Your task to perform on an android device: turn off picture-in-picture Image 0: 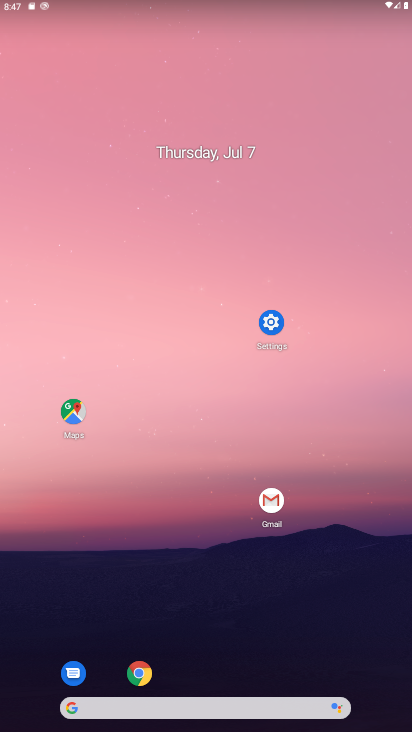
Step 0: click (134, 668)
Your task to perform on an android device: turn off picture-in-picture Image 1: 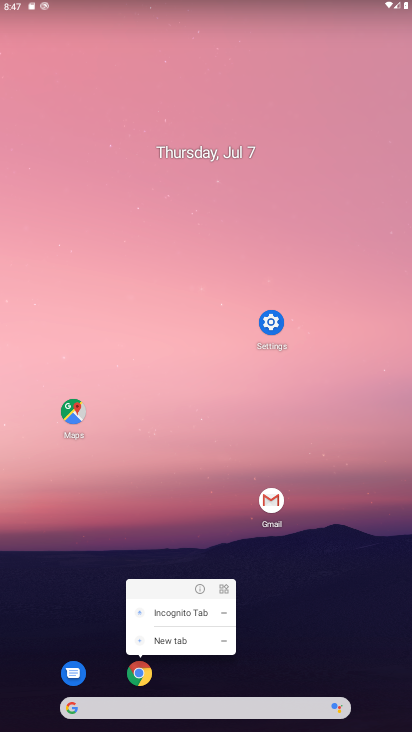
Step 1: click (202, 586)
Your task to perform on an android device: turn off picture-in-picture Image 2: 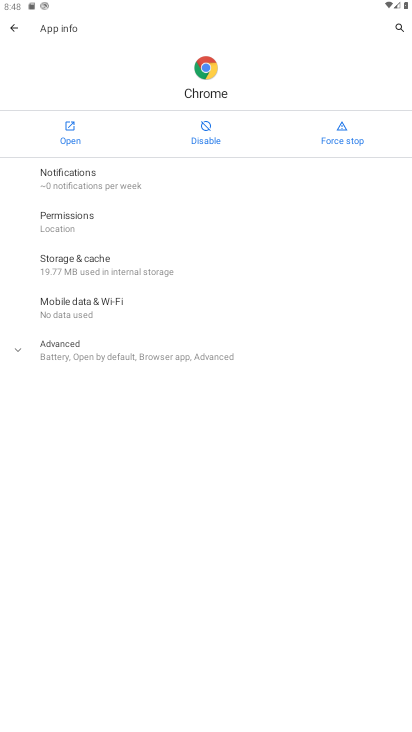
Step 2: click (32, 343)
Your task to perform on an android device: turn off picture-in-picture Image 3: 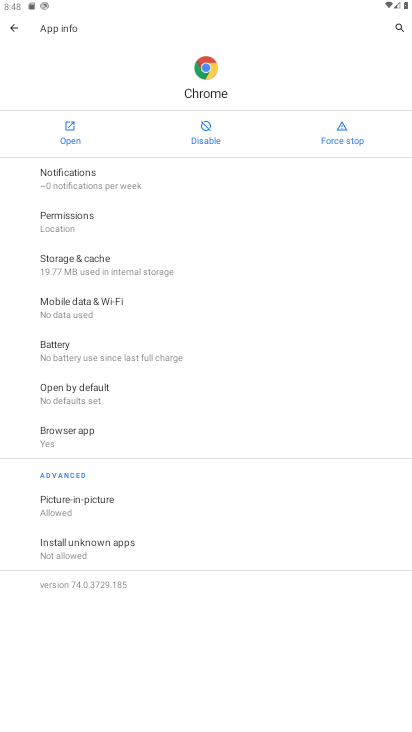
Step 3: click (84, 508)
Your task to perform on an android device: turn off picture-in-picture Image 4: 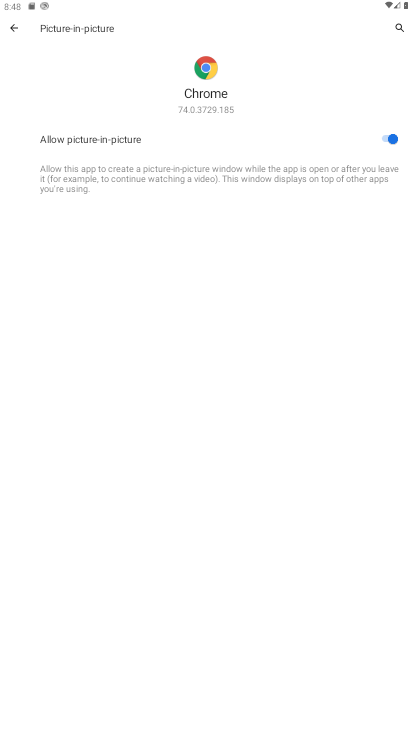
Step 4: click (380, 132)
Your task to perform on an android device: turn off picture-in-picture Image 5: 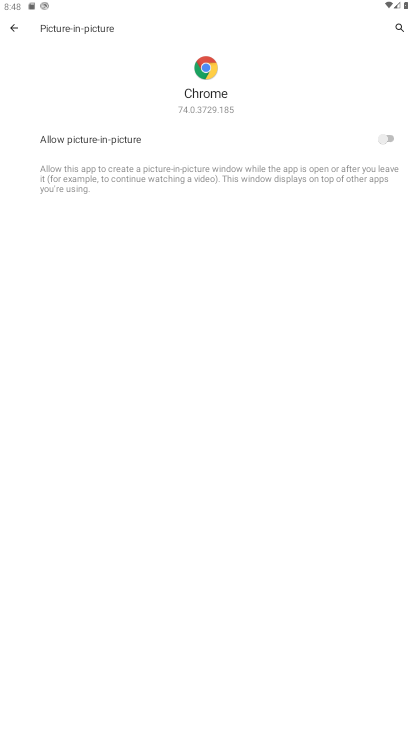
Step 5: task complete